Your task to perform on an android device: Open Yahoo.com Image 0: 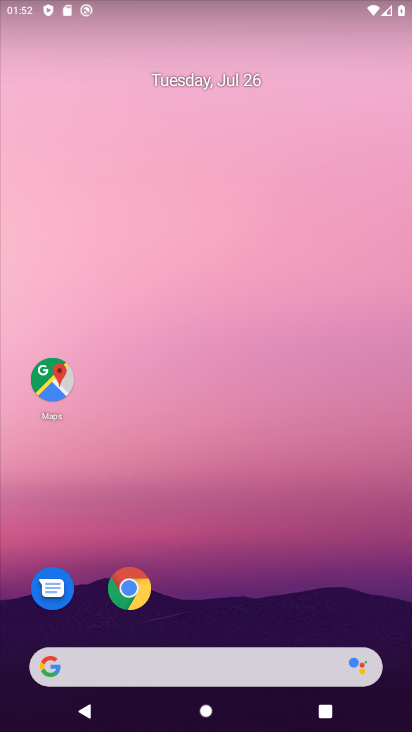
Step 0: drag from (278, 617) to (227, 240)
Your task to perform on an android device: Open Yahoo.com Image 1: 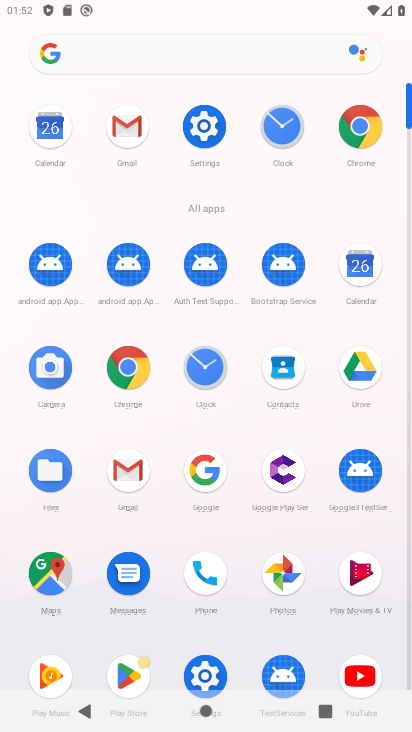
Step 1: click (355, 140)
Your task to perform on an android device: Open Yahoo.com Image 2: 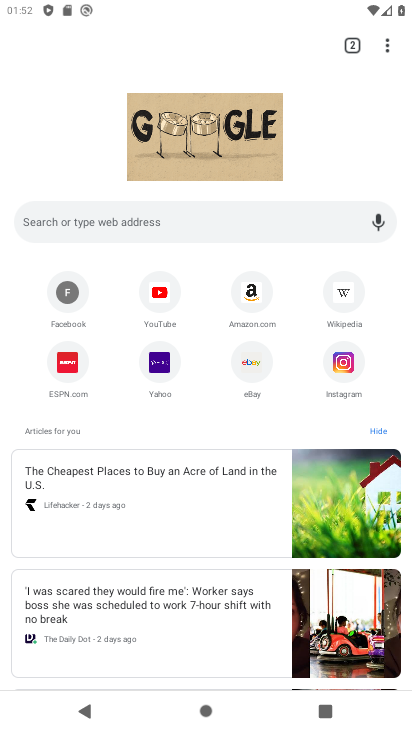
Step 2: click (165, 371)
Your task to perform on an android device: Open Yahoo.com Image 3: 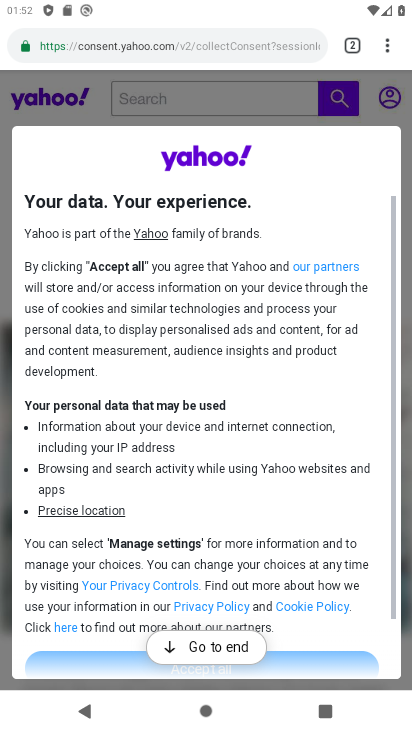
Step 3: task complete